Your task to perform on an android device: Open the map Image 0: 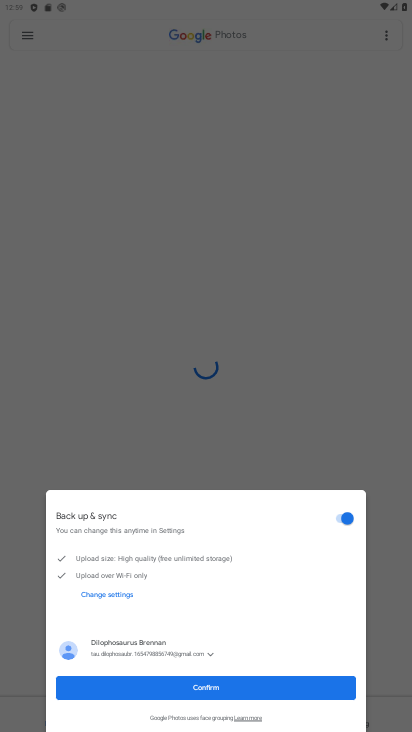
Step 0: press home button
Your task to perform on an android device: Open the map Image 1: 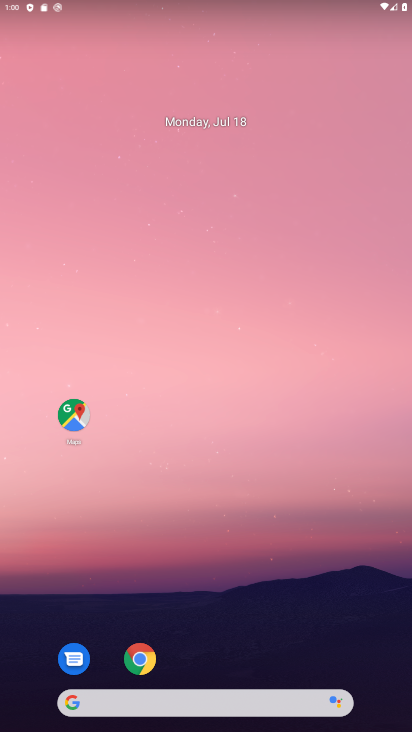
Step 1: drag from (250, 634) to (228, 55)
Your task to perform on an android device: Open the map Image 2: 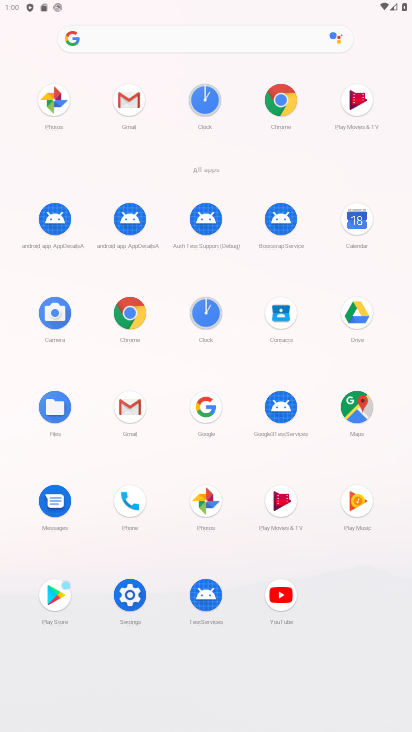
Step 2: click (354, 401)
Your task to perform on an android device: Open the map Image 3: 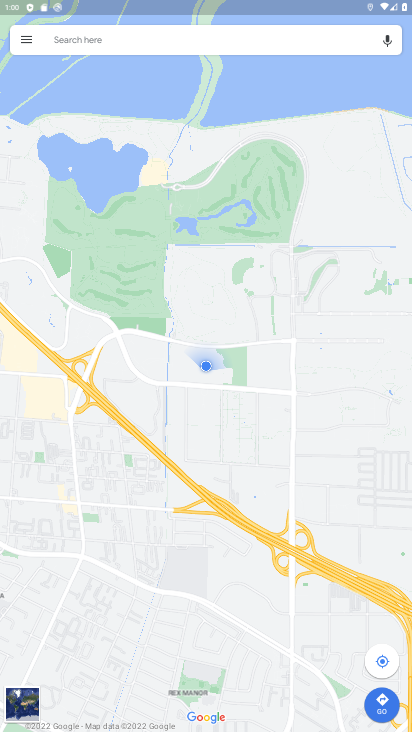
Step 3: task complete